Your task to perform on an android device: Go to Google maps Image 0: 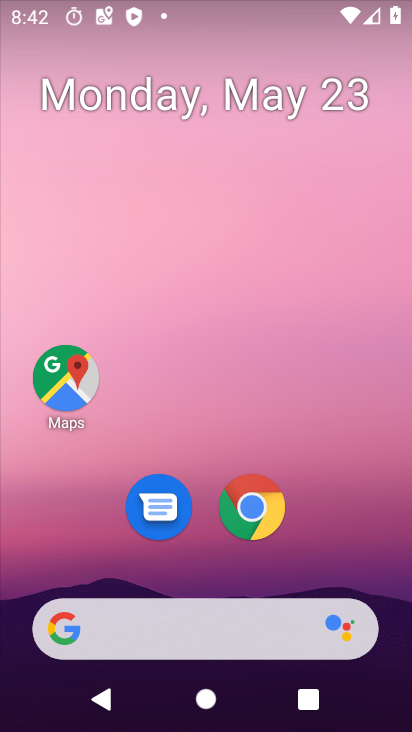
Step 0: drag from (351, 527) to (283, 4)
Your task to perform on an android device: Go to Google maps Image 1: 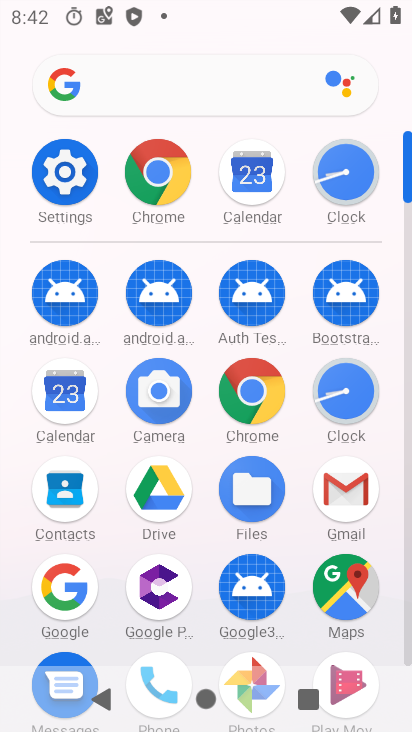
Step 1: click (334, 618)
Your task to perform on an android device: Go to Google maps Image 2: 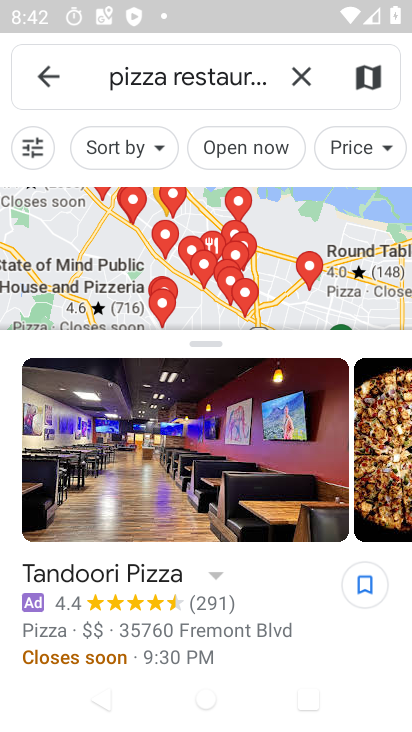
Step 2: task complete